Your task to perform on an android device: turn pop-ups on in chrome Image 0: 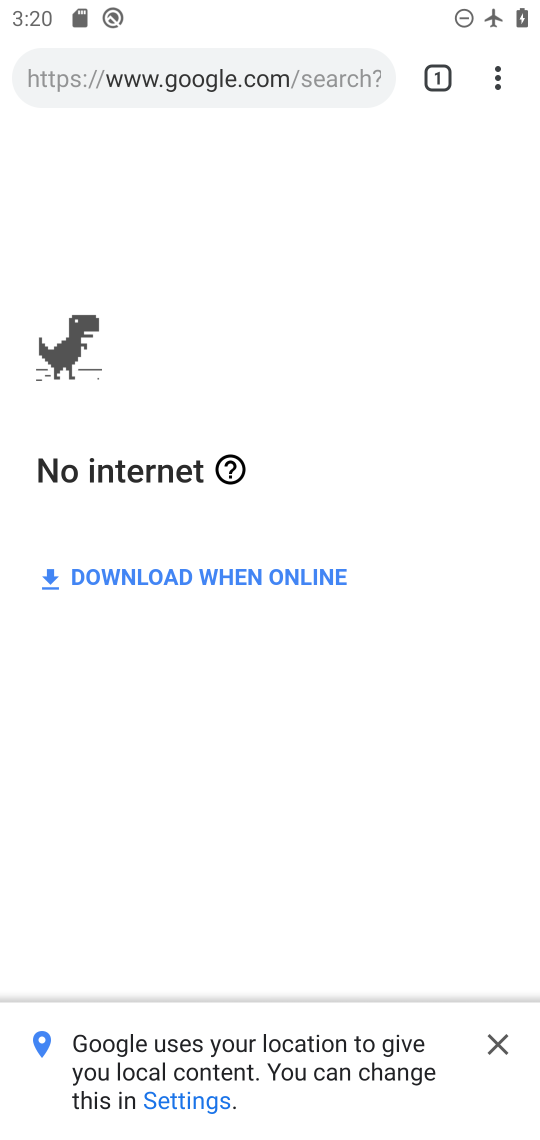
Step 0: press home button
Your task to perform on an android device: turn pop-ups on in chrome Image 1: 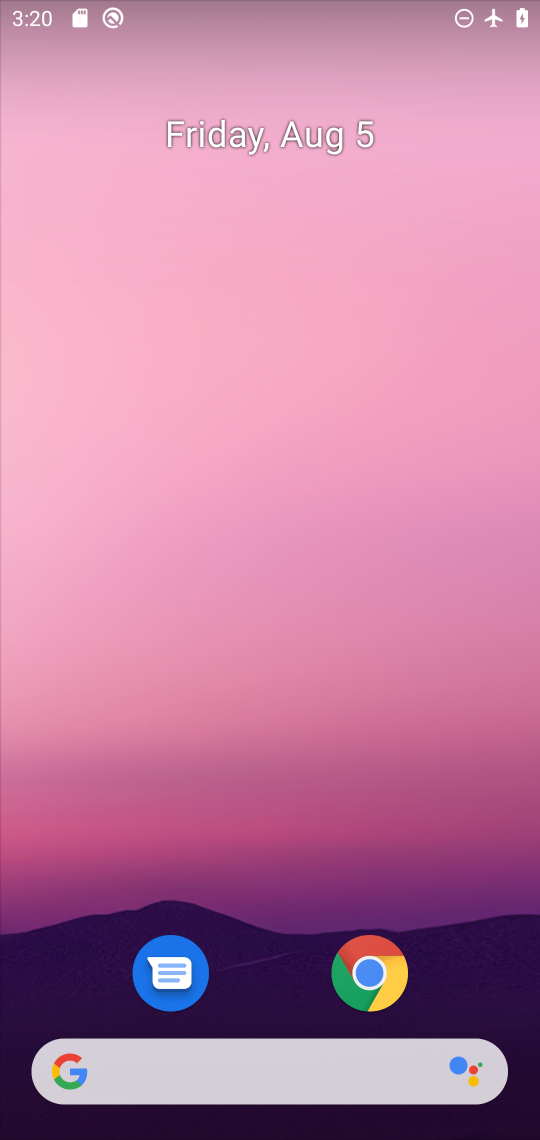
Step 1: click (375, 948)
Your task to perform on an android device: turn pop-ups on in chrome Image 2: 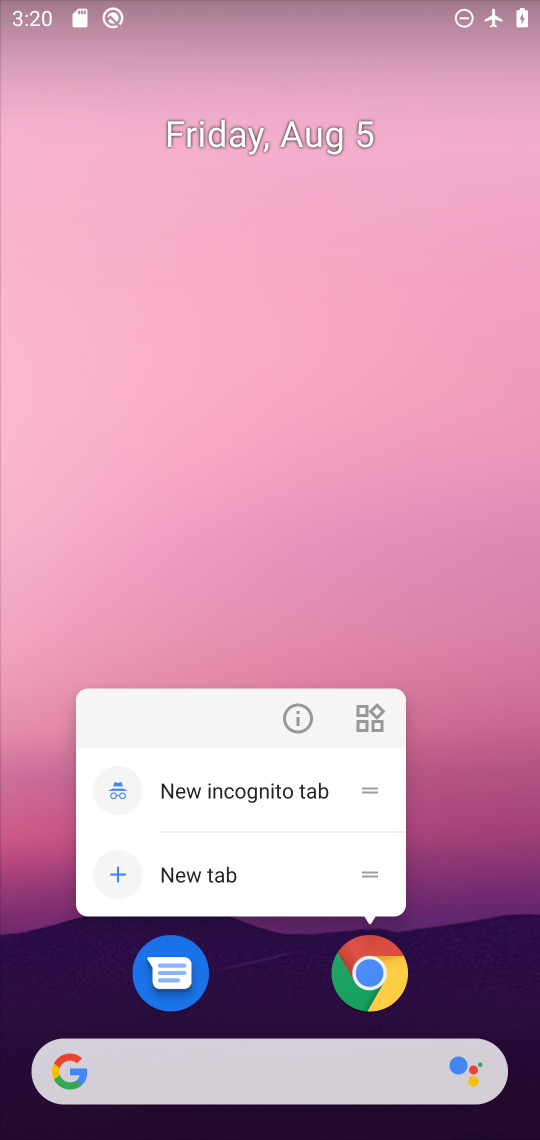
Step 2: click (375, 985)
Your task to perform on an android device: turn pop-ups on in chrome Image 3: 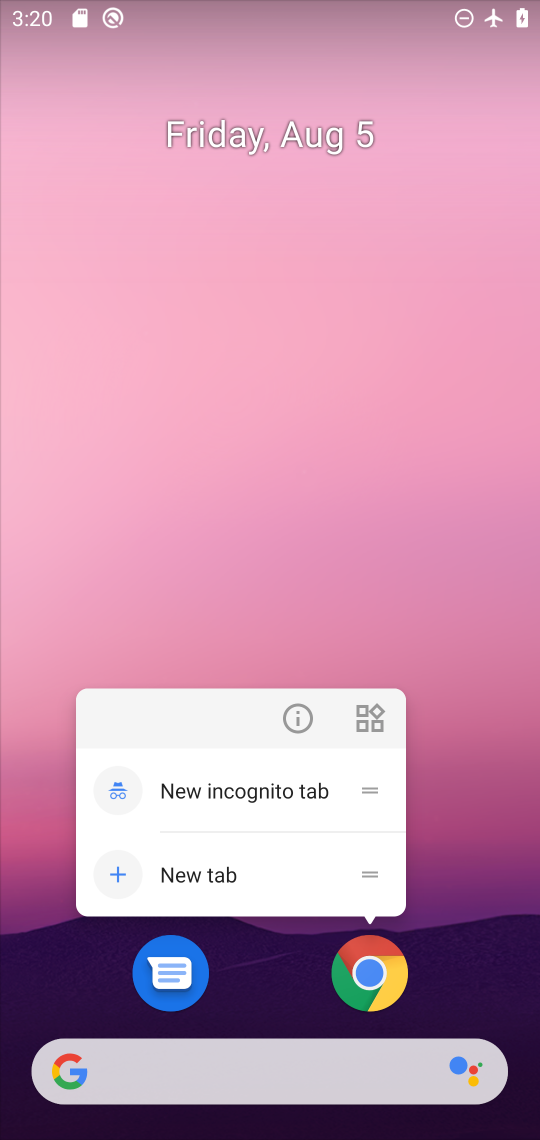
Step 3: click (375, 985)
Your task to perform on an android device: turn pop-ups on in chrome Image 4: 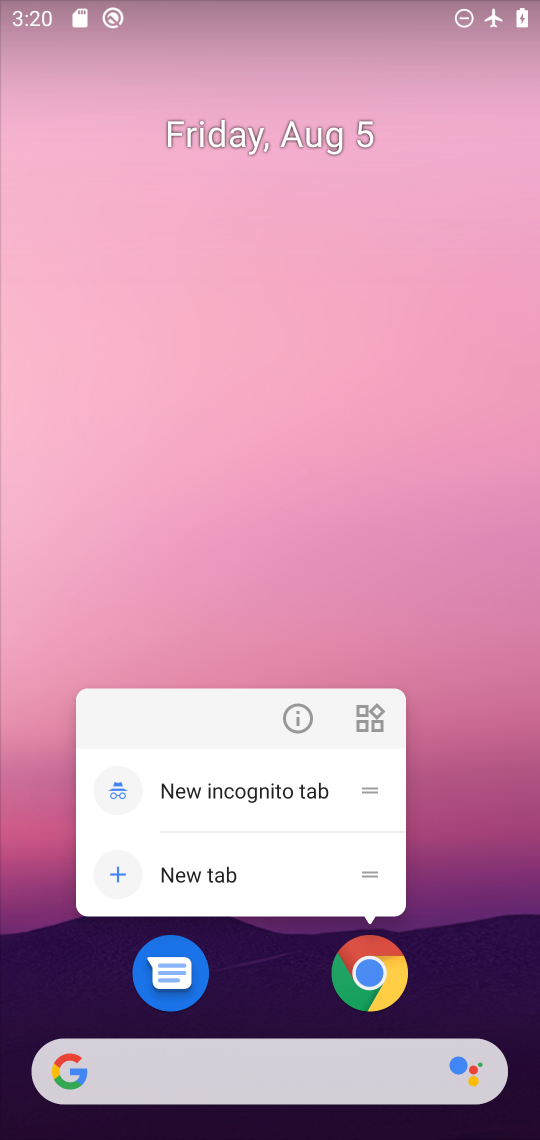
Step 4: click (375, 985)
Your task to perform on an android device: turn pop-ups on in chrome Image 5: 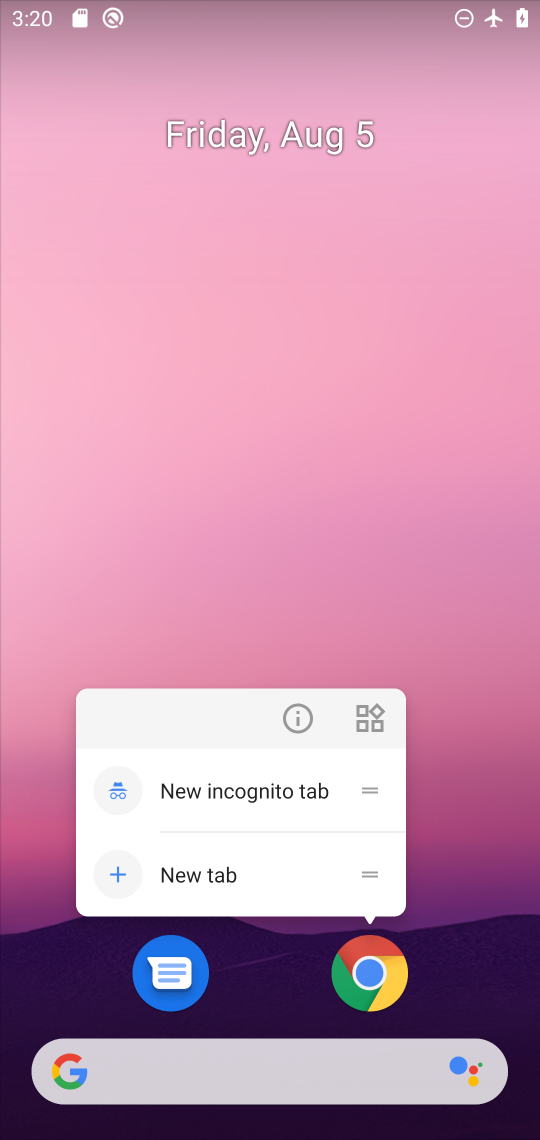
Step 5: click (375, 985)
Your task to perform on an android device: turn pop-ups on in chrome Image 6: 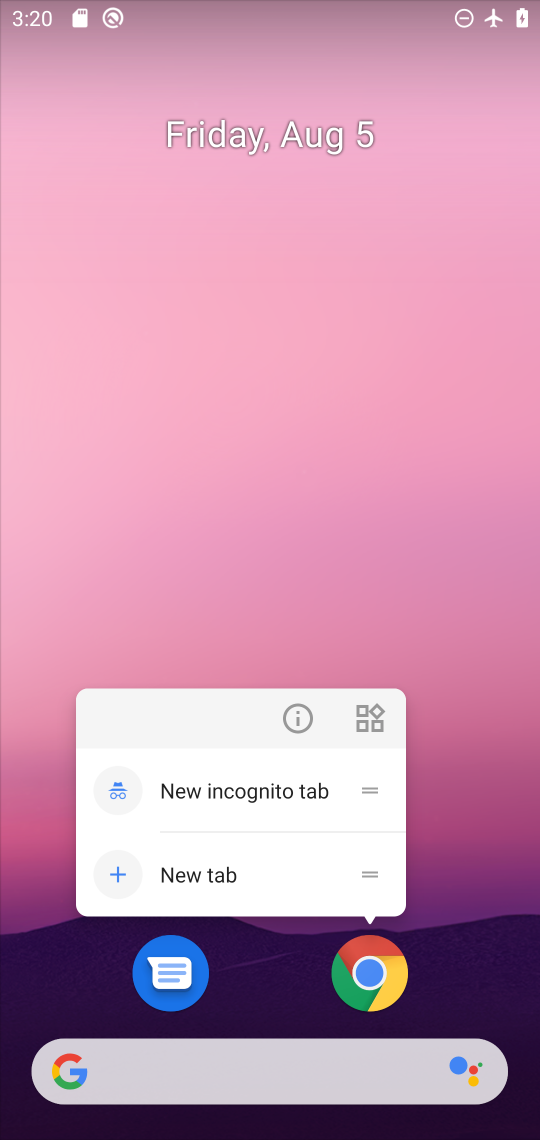
Step 6: click (389, 970)
Your task to perform on an android device: turn pop-ups on in chrome Image 7: 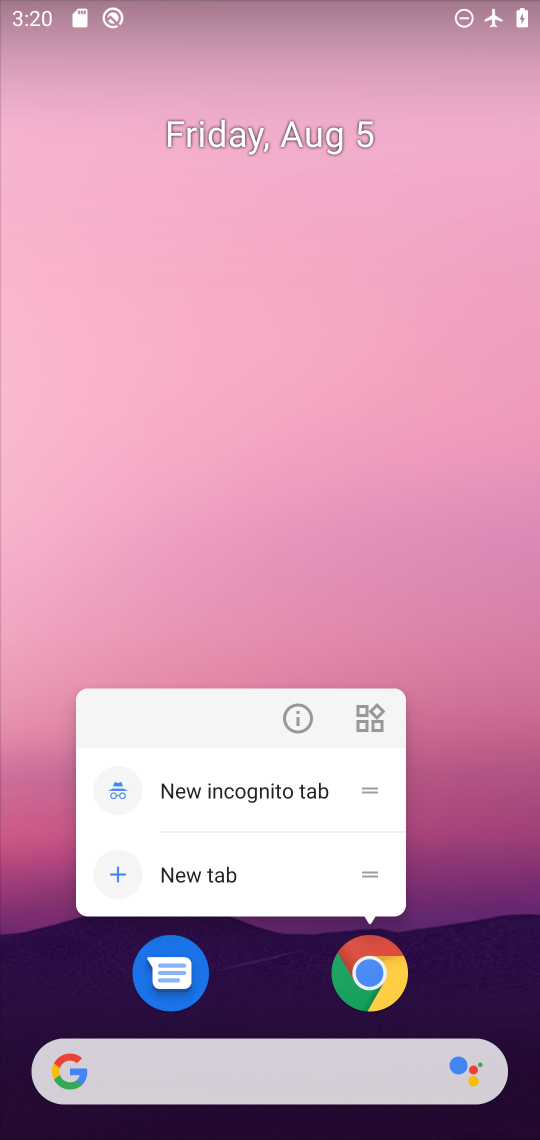
Step 7: click (397, 959)
Your task to perform on an android device: turn pop-ups on in chrome Image 8: 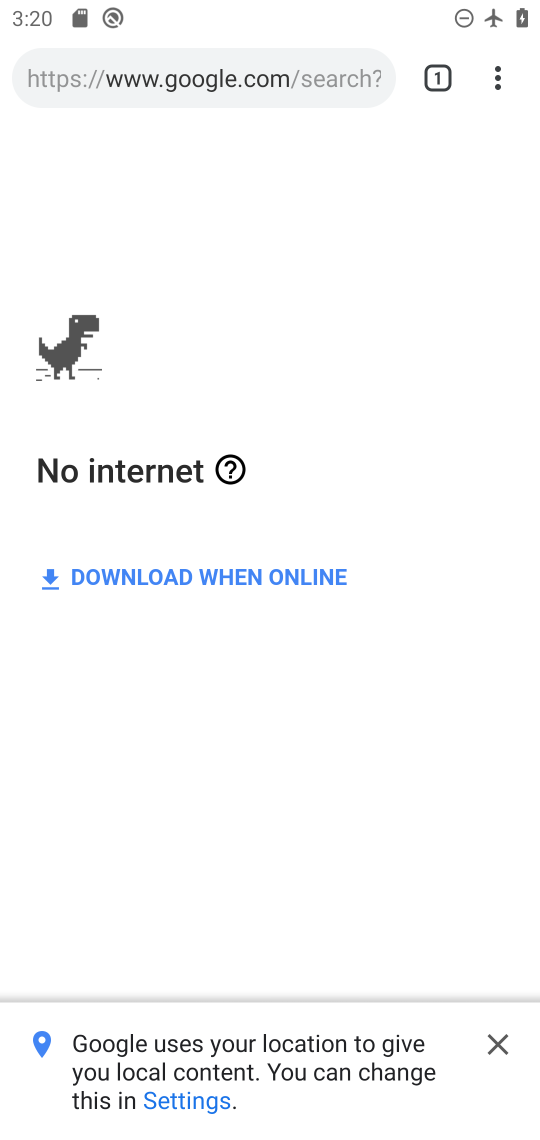
Step 8: drag from (496, 82) to (214, 861)
Your task to perform on an android device: turn pop-ups on in chrome Image 9: 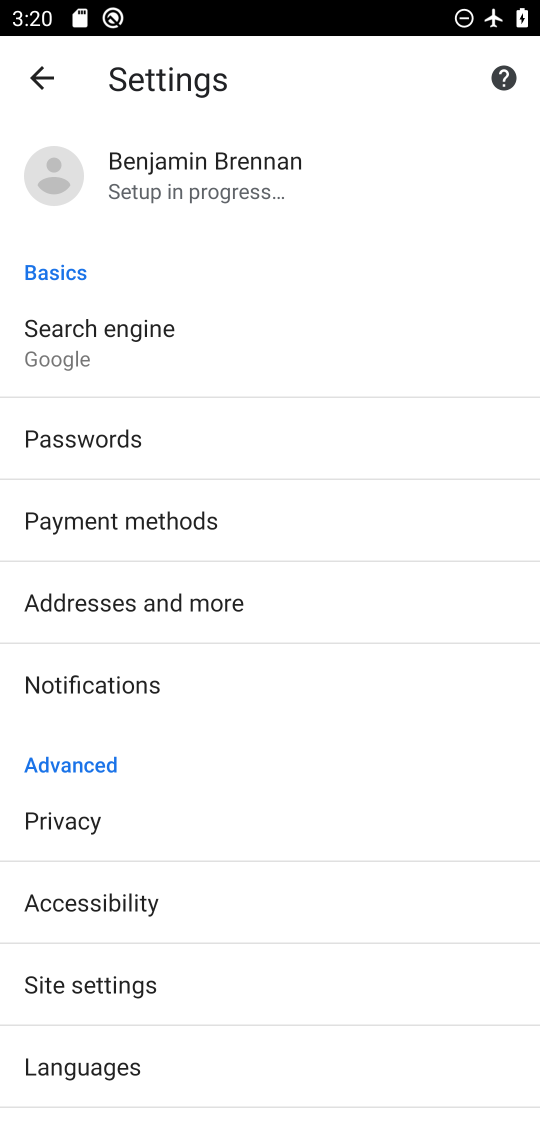
Step 9: click (96, 973)
Your task to perform on an android device: turn pop-ups on in chrome Image 10: 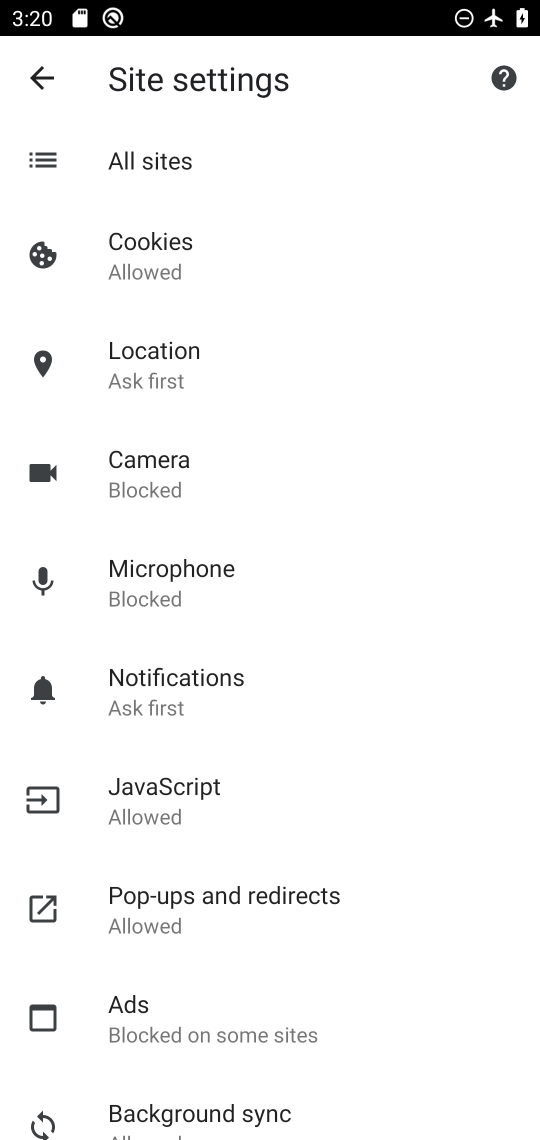
Step 10: click (171, 892)
Your task to perform on an android device: turn pop-ups on in chrome Image 11: 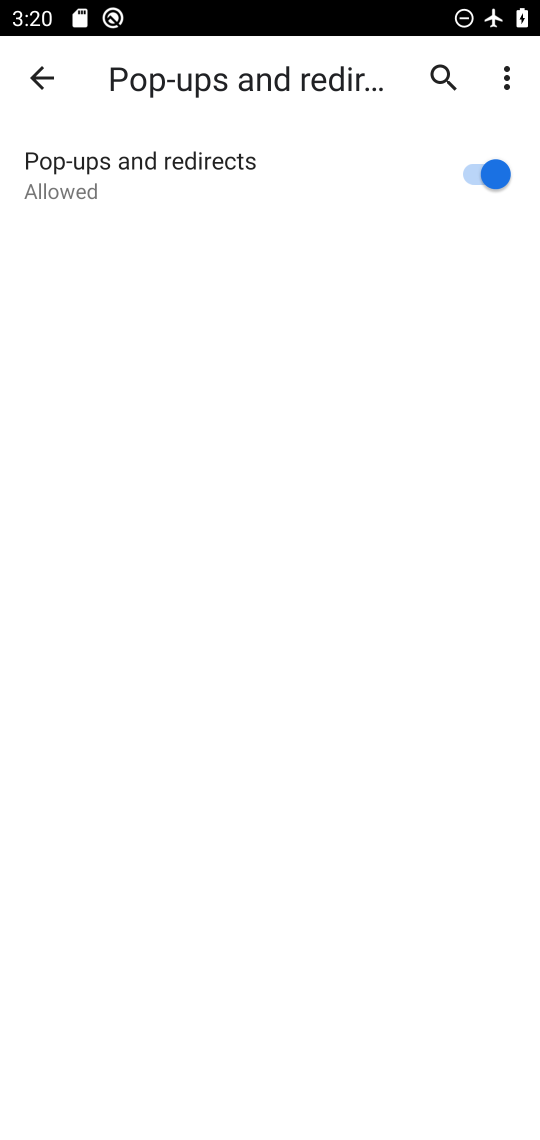
Step 11: click (487, 171)
Your task to perform on an android device: turn pop-ups on in chrome Image 12: 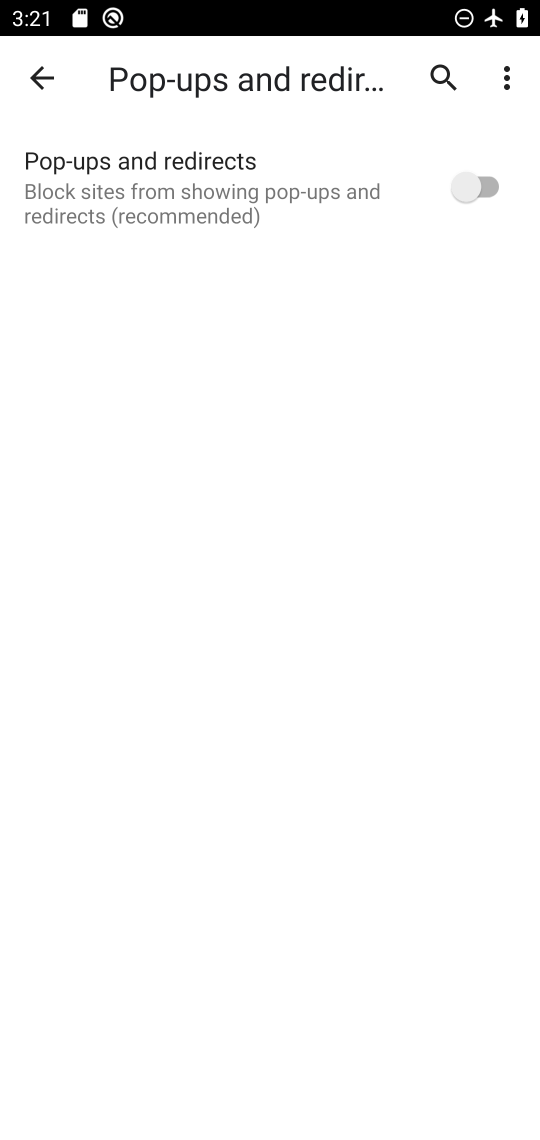
Step 12: click (458, 183)
Your task to perform on an android device: turn pop-ups on in chrome Image 13: 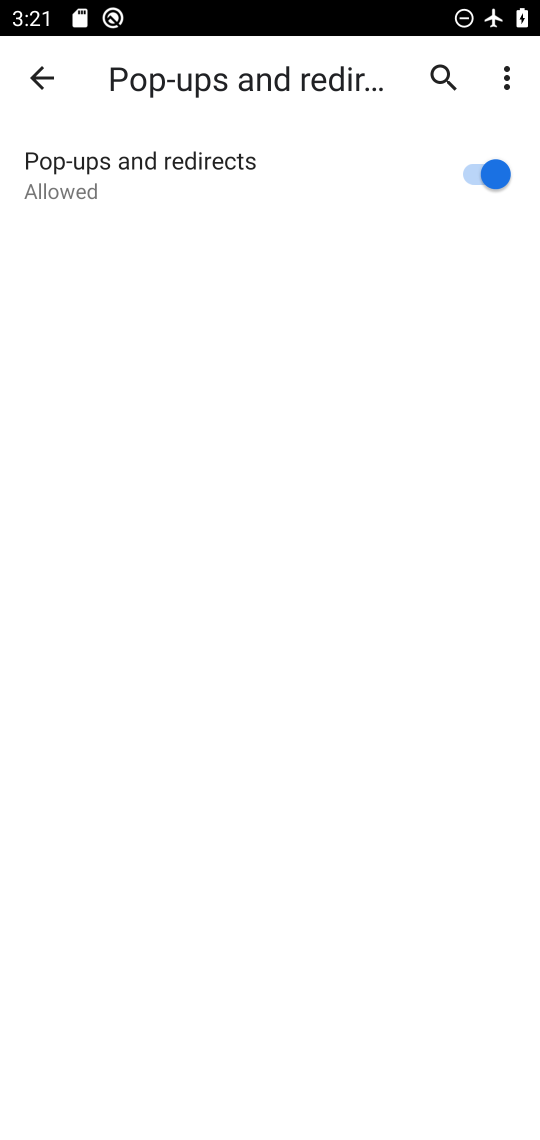
Step 13: task complete